Your task to perform on an android device: Go to wifi settings Image 0: 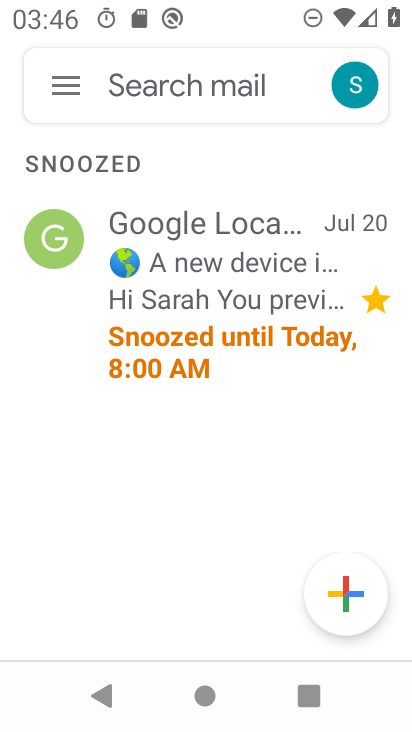
Step 0: press home button
Your task to perform on an android device: Go to wifi settings Image 1: 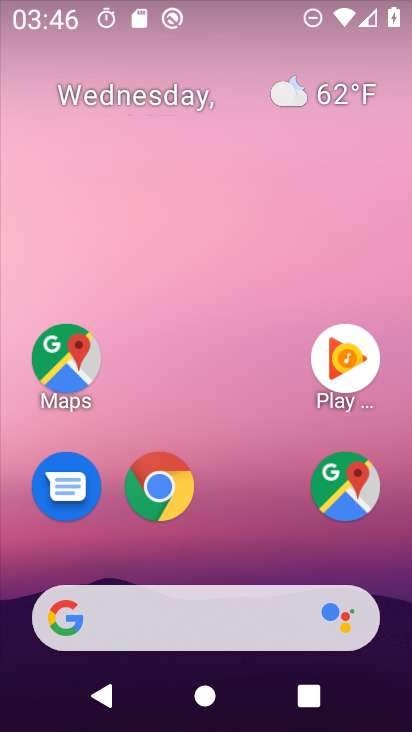
Step 1: drag from (250, 530) to (237, 123)
Your task to perform on an android device: Go to wifi settings Image 2: 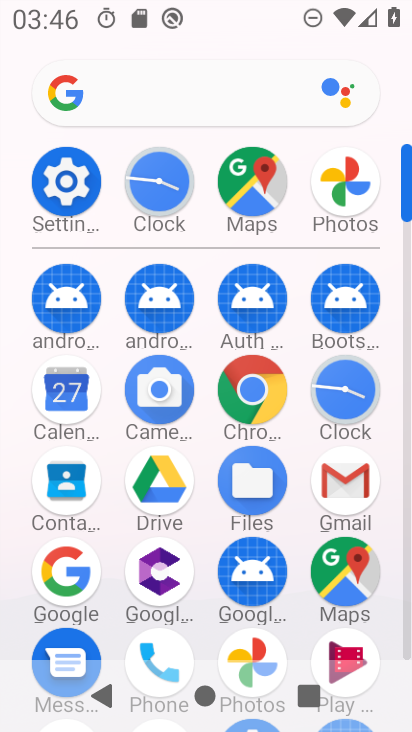
Step 2: click (83, 186)
Your task to perform on an android device: Go to wifi settings Image 3: 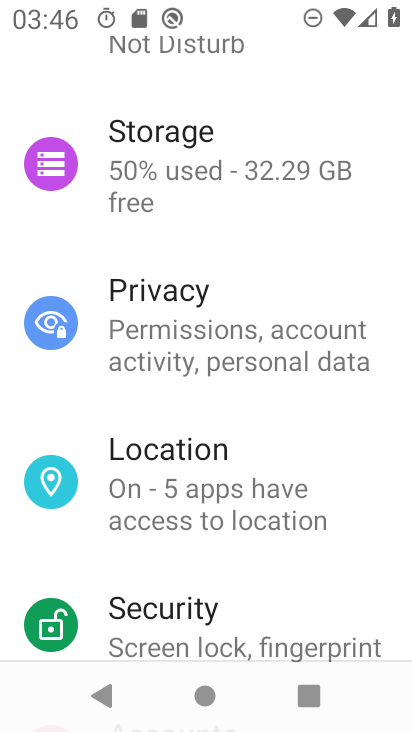
Step 3: drag from (343, 234) to (354, 308)
Your task to perform on an android device: Go to wifi settings Image 4: 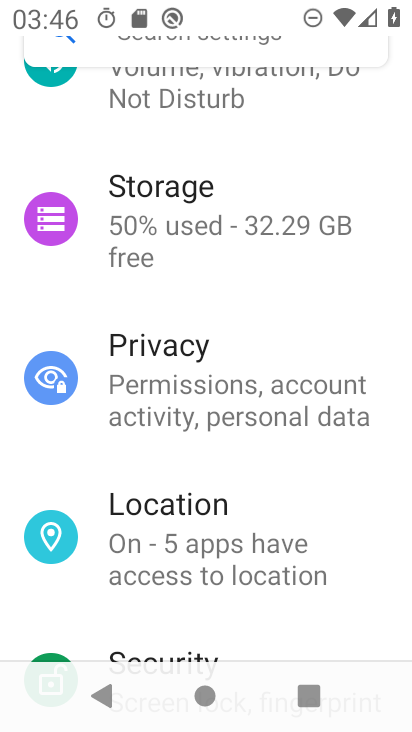
Step 4: drag from (377, 187) to (374, 299)
Your task to perform on an android device: Go to wifi settings Image 5: 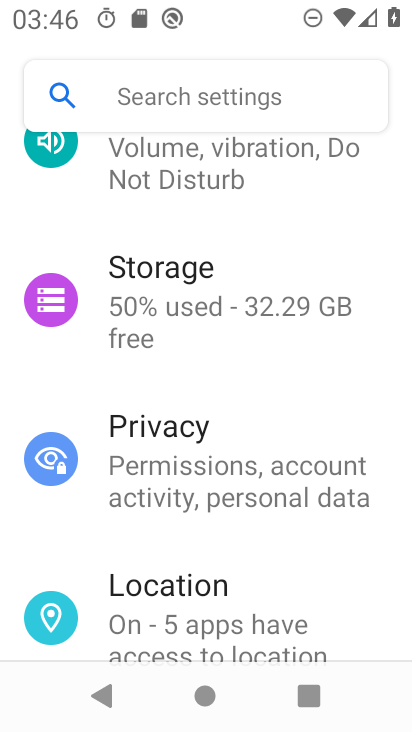
Step 5: drag from (364, 220) to (373, 336)
Your task to perform on an android device: Go to wifi settings Image 6: 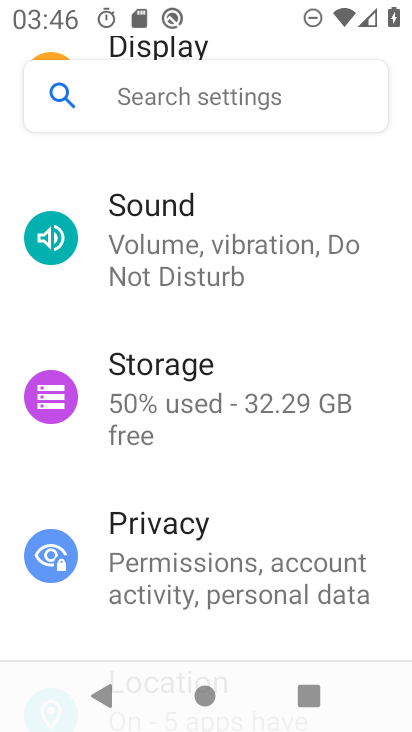
Step 6: drag from (365, 215) to (375, 312)
Your task to perform on an android device: Go to wifi settings Image 7: 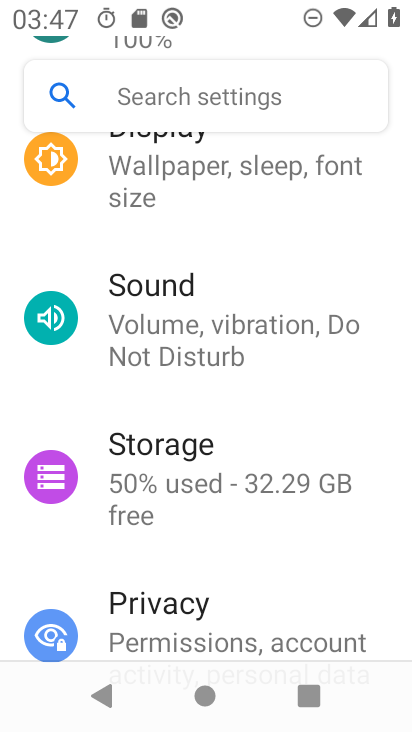
Step 7: drag from (374, 204) to (374, 292)
Your task to perform on an android device: Go to wifi settings Image 8: 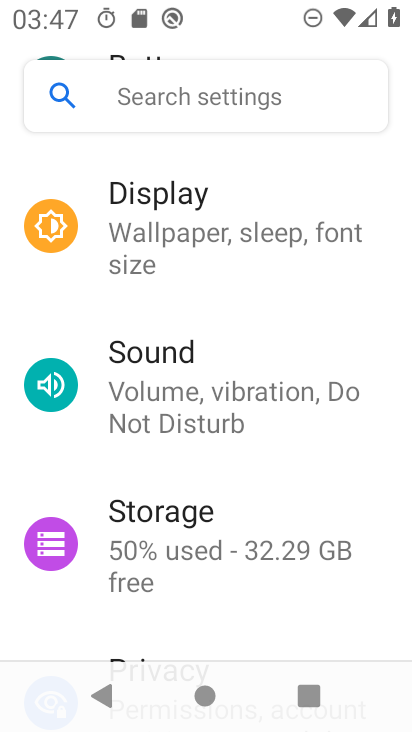
Step 8: drag from (376, 199) to (375, 294)
Your task to perform on an android device: Go to wifi settings Image 9: 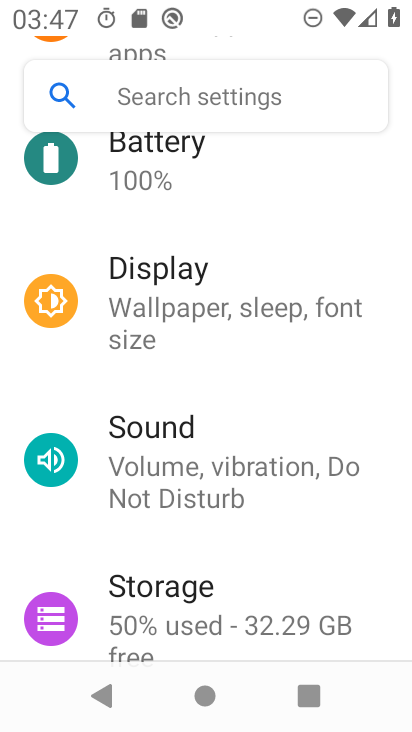
Step 9: drag from (371, 213) to (371, 293)
Your task to perform on an android device: Go to wifi settings Image 10: 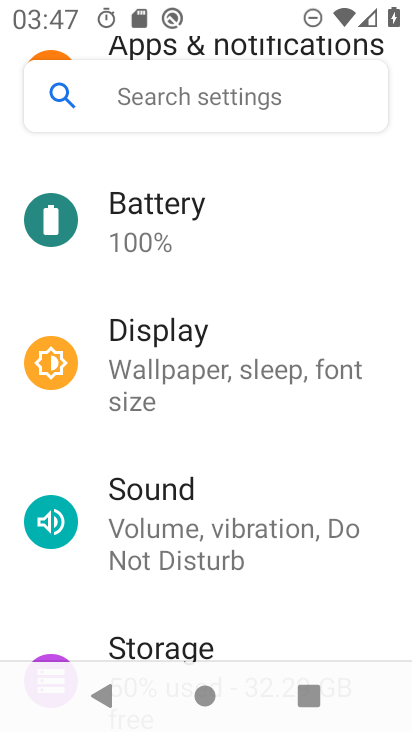
Step 10: drag from (366, 184) to (369, 291)
Your task to perform on an android device: Go to wifi settings Image 11: 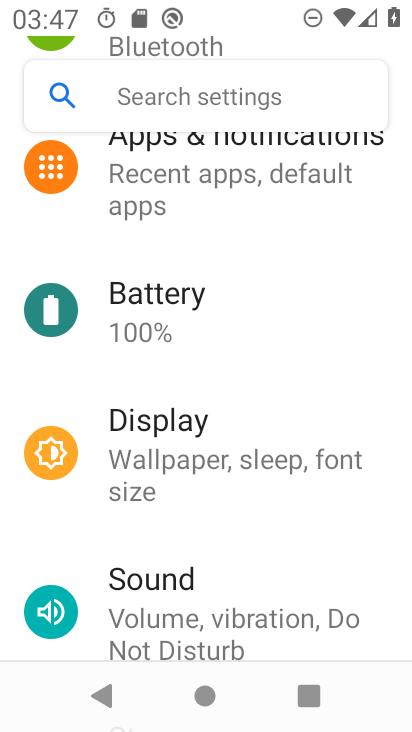
Step 11: drag from (377, 165) to (372, 300)
Your task to perform on an android device: Go to wifi settings Image 12: 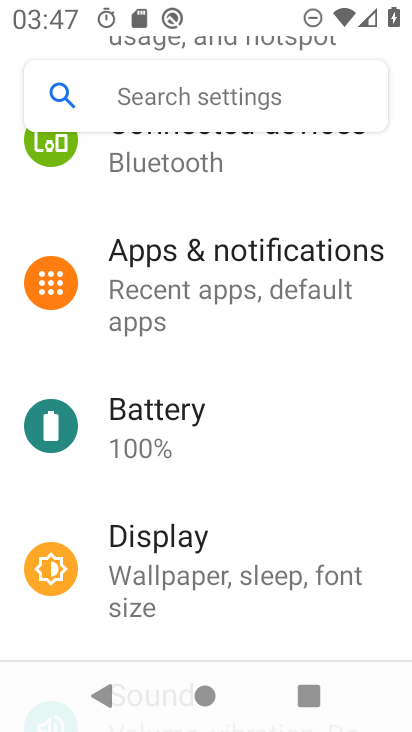
Step 12: drag from (368, 156) to (376, 345)
Your task to perform on an android device: Go to wifi settings Image 13: 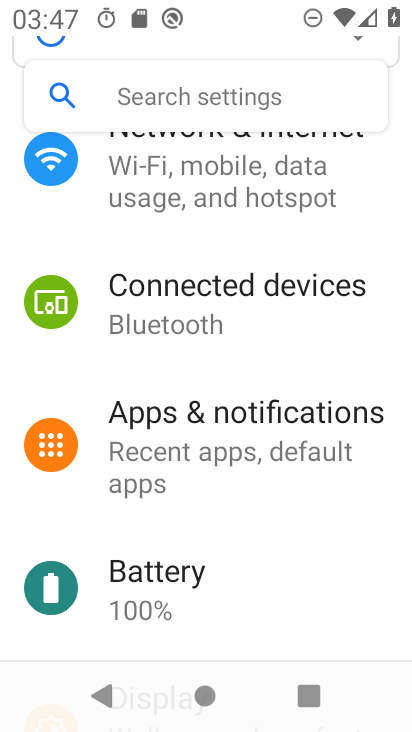
Step 13: drag from (368, 157) to (374, 408)
Your task to perform on an android device: Go to wifi settings Image 14: 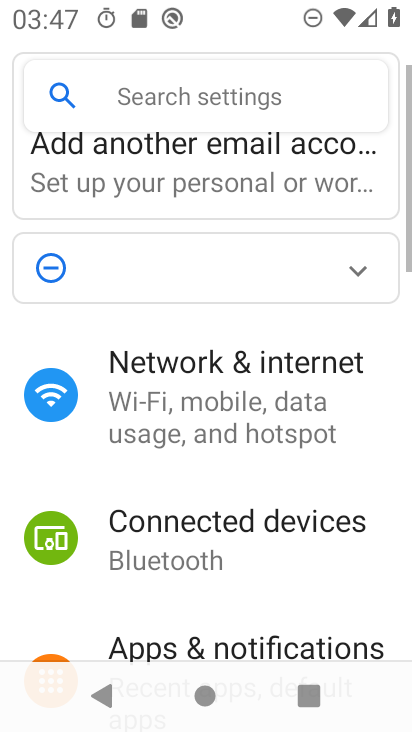
Step 14: click (330, 384)
Your task to perform on an android device: Go to wifi settings Image 15: 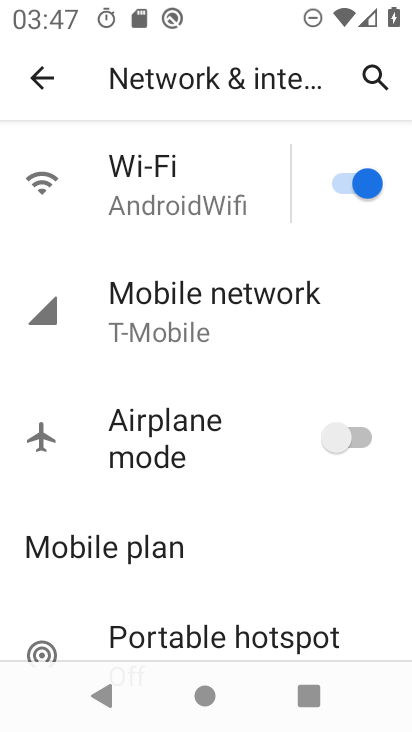
Step 15: click (180, 181)
Your task to perform on an android device: Go to wifi settings Image 16: 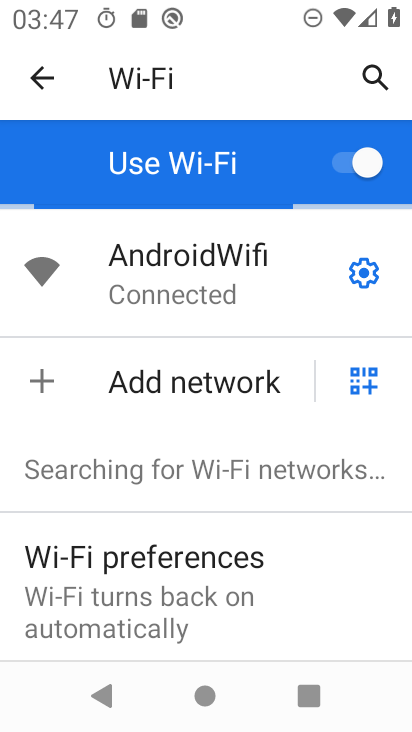
Step 16: task complete